Your task to perform on an android device: check google app version Image 0: 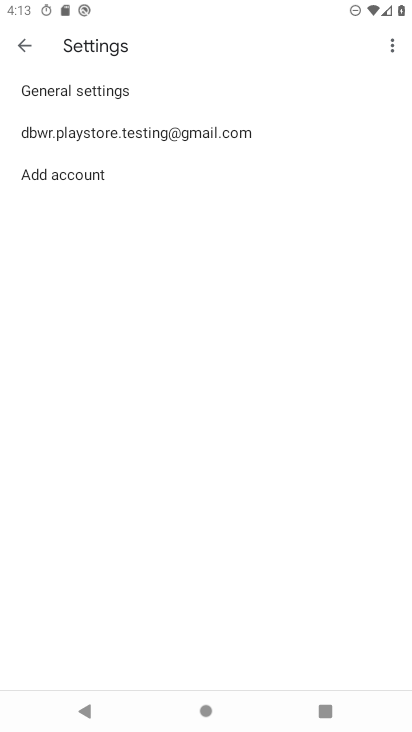
Step 0: press home button
Your task to perform on an android device: check google app version Image 1: 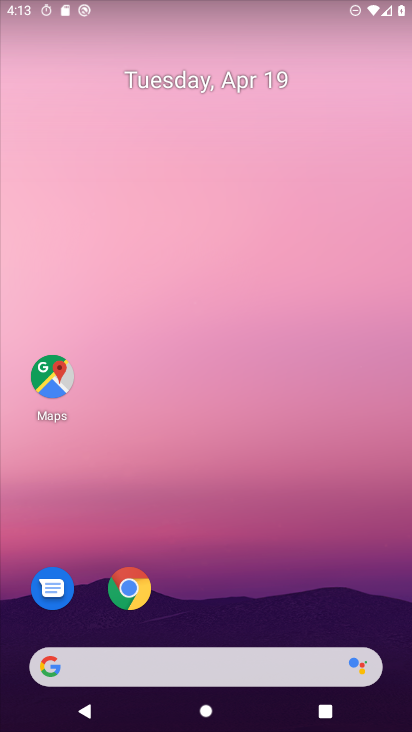
Step 1: drag from (228, 559) to (206, 96)
Your task to perform on an android device: check google app version Image 2: 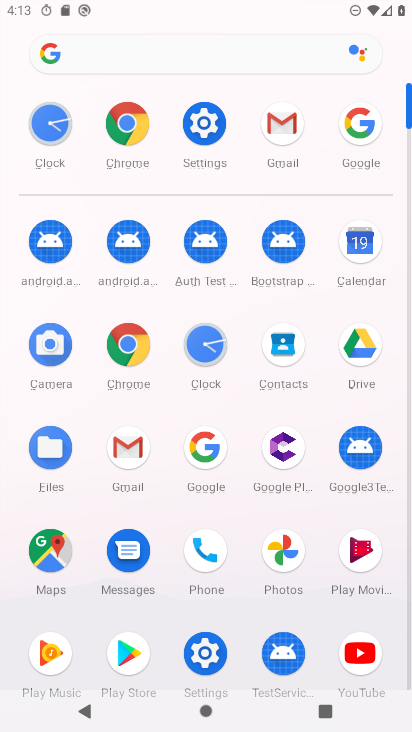
Step 2: click (204, 132)
Your task to perform on an android device: check google app version Image 3: 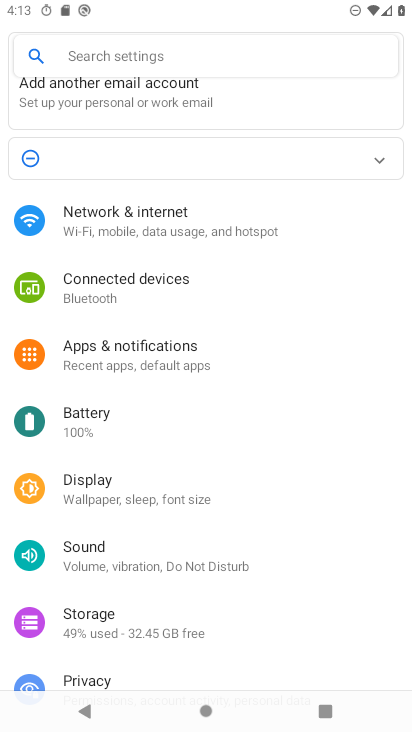
Step 3: press home button
Your task to perform on an android device: check google app version Image 4: 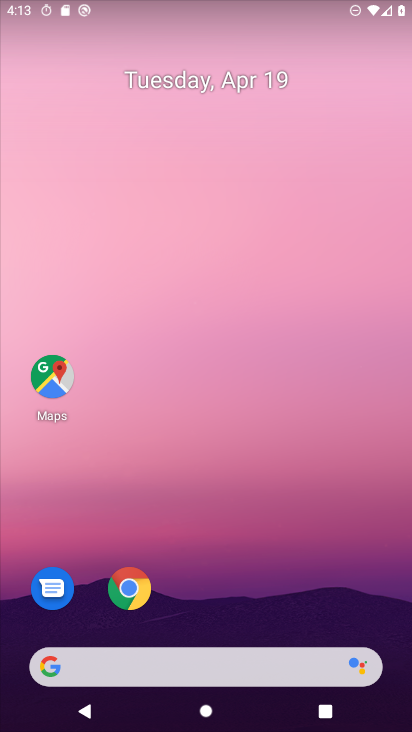
Step 4: drag from (198, 594) to (229, 80)
Your task to perform on an android device: check google app version Image 5: 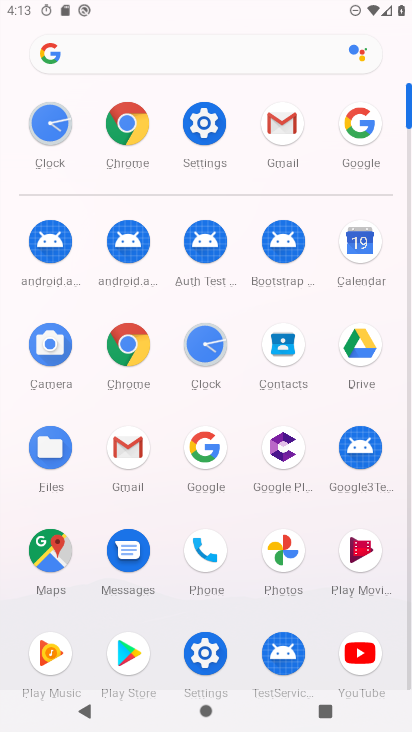
Step 5: click (205, 446)
Your task to perform on an android device: check google app version Image 6: 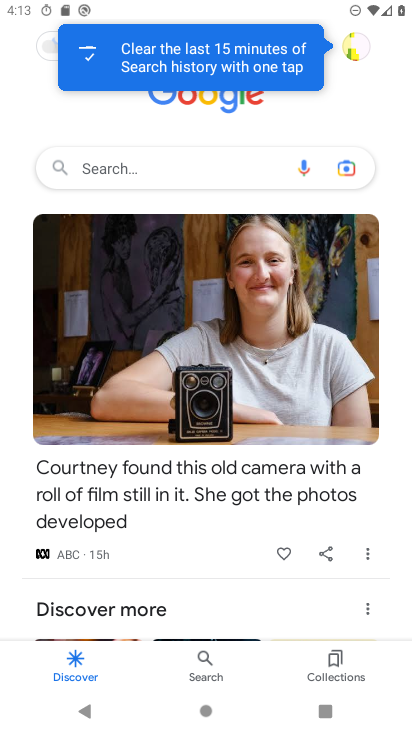
Step 6: click (356, 49)
Your task to perform on an android device: check google app version Image 7: 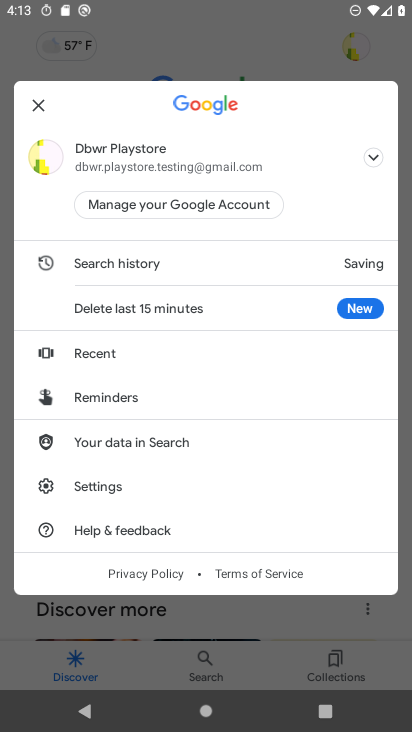
Step 7: click (94, 478)
Your task to perform on an android device: check google app version Image 8: 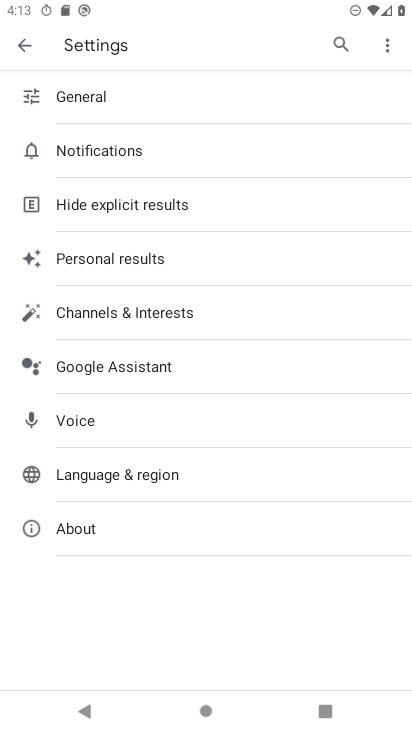
Step 8: click (86, 528)
Your task to perform on an android device: check google app version Image 9: 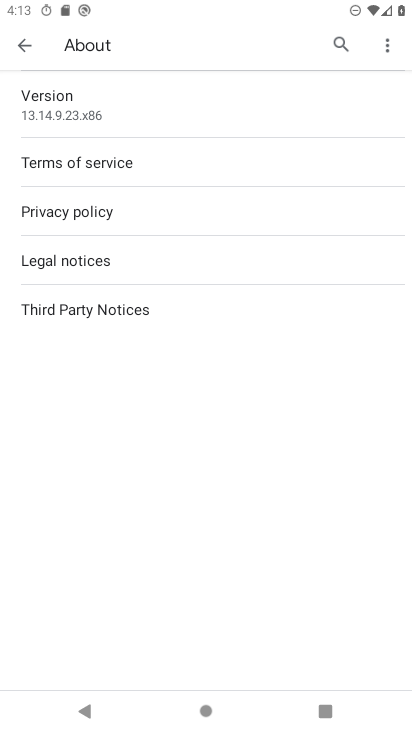
Step 9: click (88, 103)
Your task to perform on an android device: check google app version Image 10: 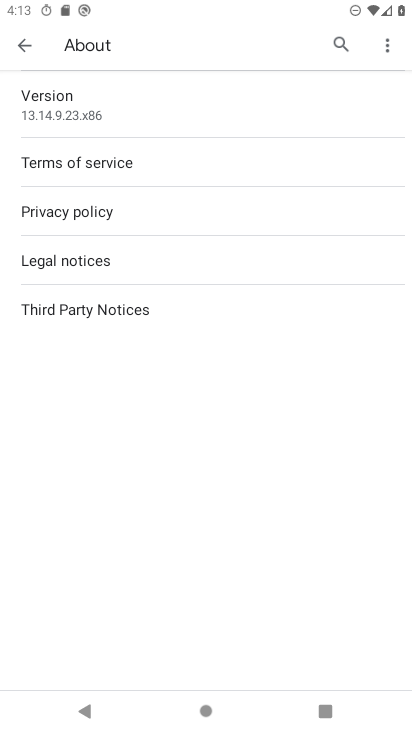
Step 10: task complete